Your task to perform on an android device: Go to display settings Image 0: 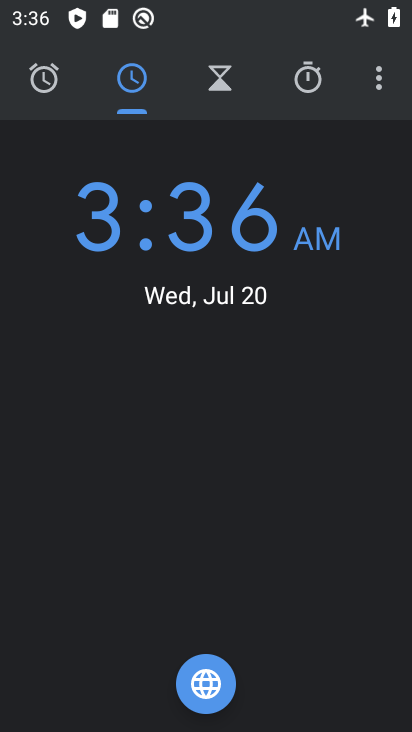
Step 0: press back button
Your task to perform on an android device: Go to display settings Image 1: 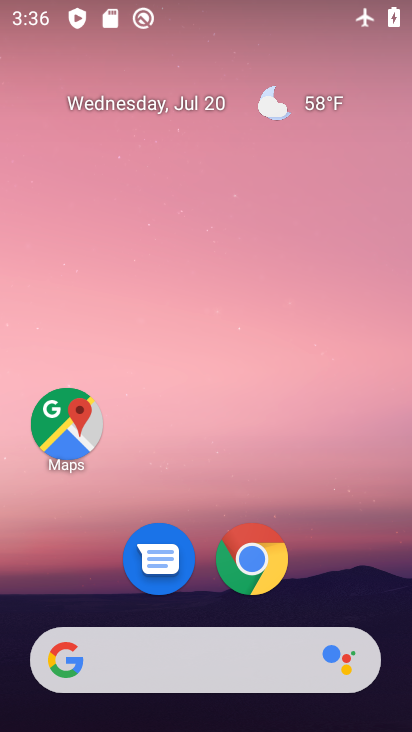
Step 1: drag from (85, 588) to (239, 24)
Your task to perform on an android device: Go to display settings Image 2: 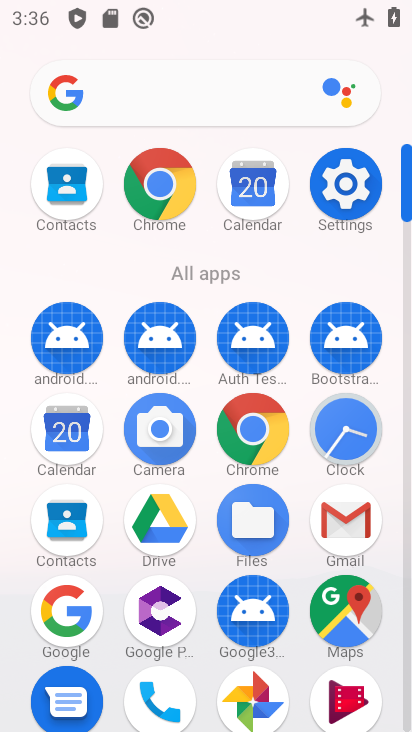
Step 2: click (338, 183)
Your task to perform on an android device: Go to display settings Image 3: 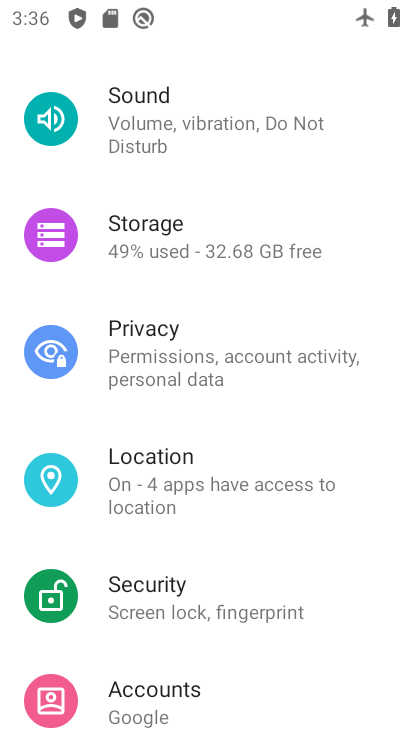
Step 3: drag from (242, 173) to (188, 691)
Your task to perform on an android device: Go to display settings Image 4: 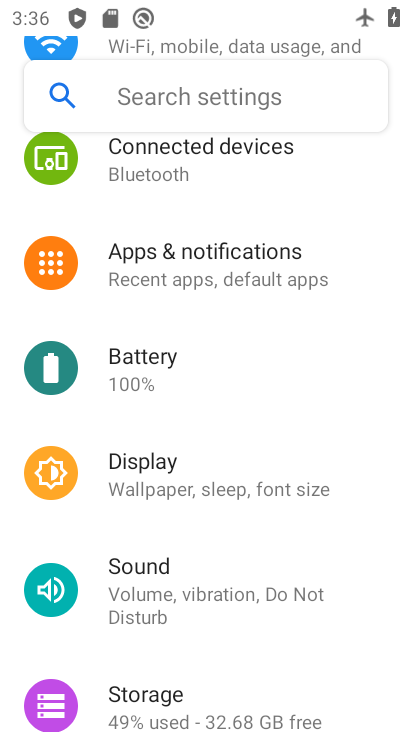
Step 4: click (170, 480)
Your task to perform on an android device: Go to display settings Image 5: 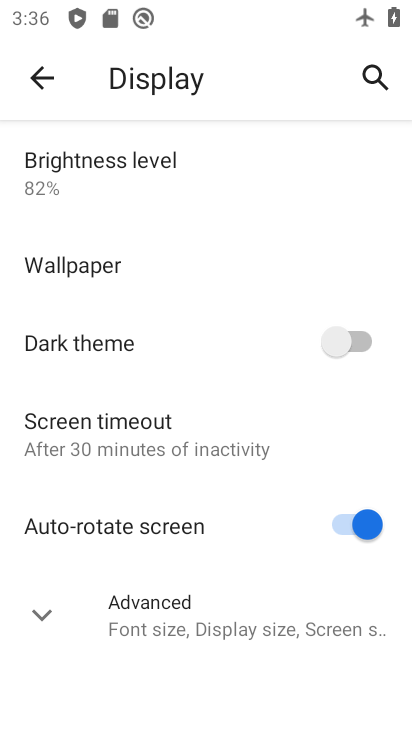
Step 5: task complete